Your task to perform on an android device: Open Google Maps and go to "Timeline" Image 0: 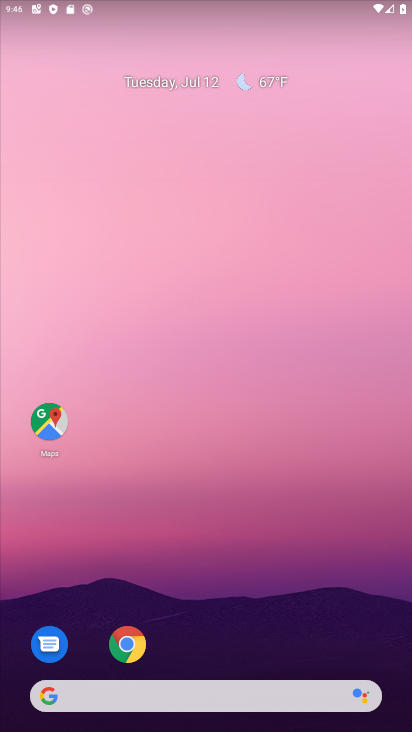
Step 0: drag from (215, 637) to (341, 59)
Your task to perform on an android device: Open Google Maps and go to "Timeline" Image 1: 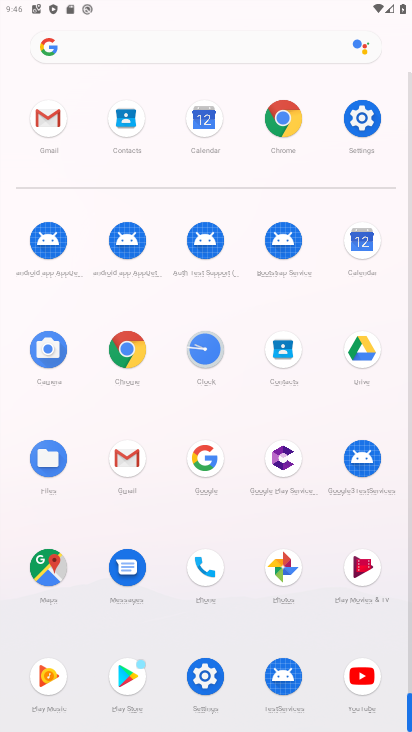
Step 1: click (45, 564)
Your task to perform on an android device: Open Google Maps and go to "Timeline" Image 2: 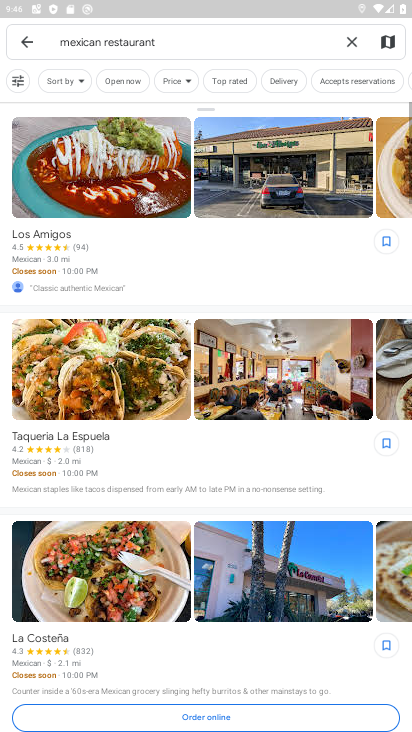
Step 2: click (12, 41)
Your task to perform on an android device: Open Google Maps and go to "Timeline" Image 3: 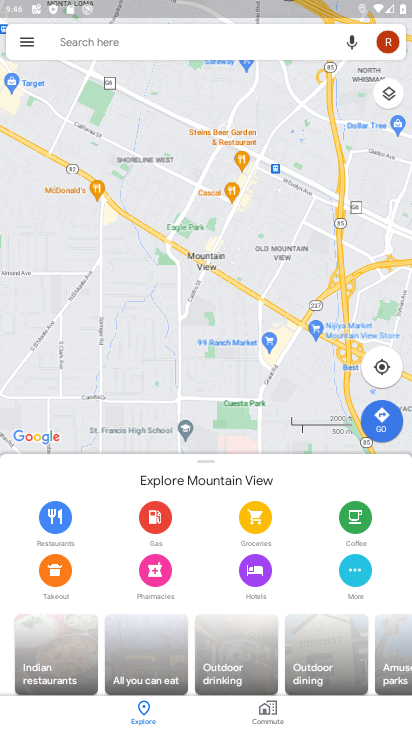
Step 3: click (23, 43)
Your task to perform on an android device: Open Google Maps and go to "Timeline" Image 4: 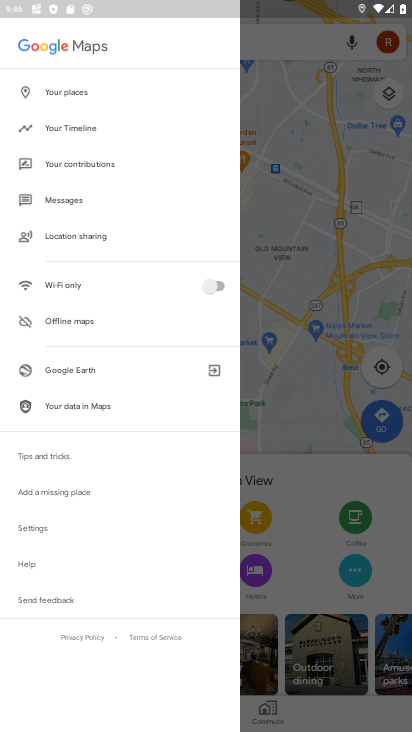
Step 4: click (76, 124)
Your task to perform on an android device: Open Google Maps and go to "Timeline" Image 5: 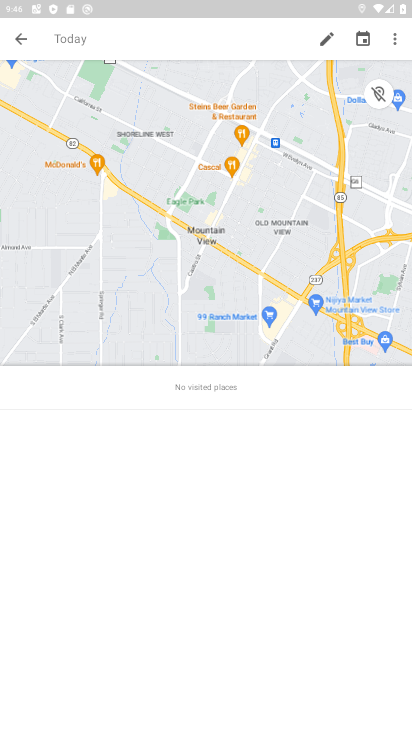
Step 5: drag from (160, 475) to (200, 169)
Your task to perform on an android device: Open Google Maps and go to "Timeline" Image 6: 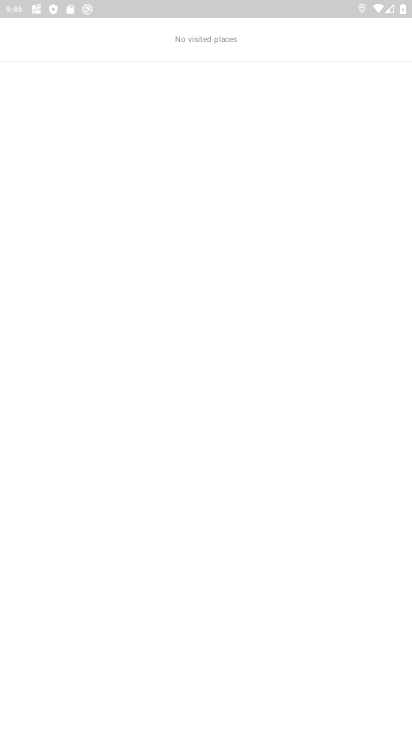
Step 6: drag from (185, 135) to (168, 690)
Your task to perform on an android device: Open Google Maps and go to "Timeline" Image 7: 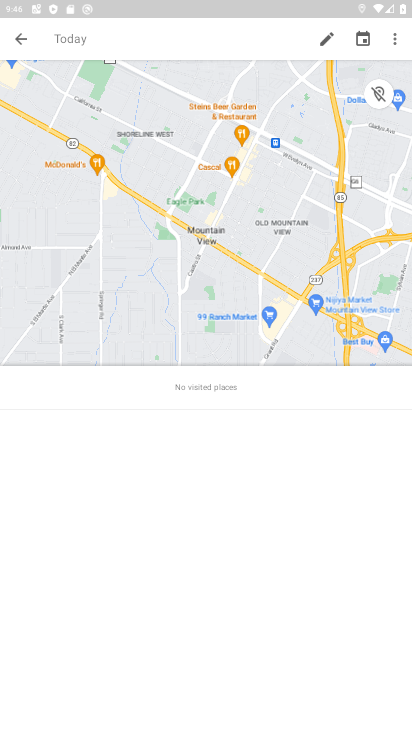
Step 7: click (12, 50)
Your task to perform on an android device: Open Google Maps and go to "Timeline" Image 8: 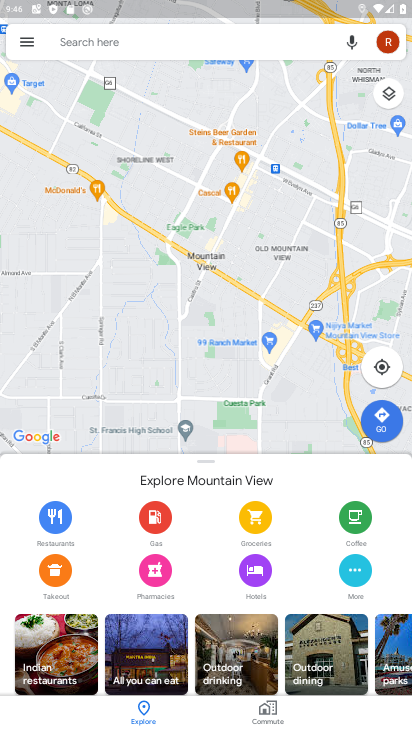
Step 8: drag from (228, 473) to (246, 206)
Your task to perform on an android device: Open Google Maps and go to "Timeline" Image 9: 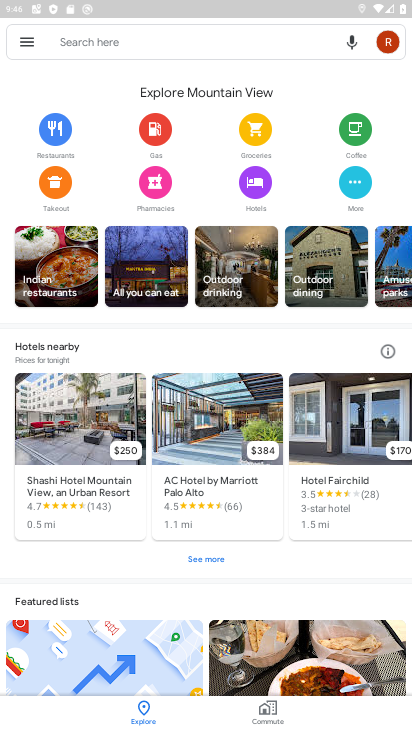
Step 9: drag from (192, 86) to (214, 542)
Your task to perform on an android device: Open Google Maps and go to "Timeline" Image 10: 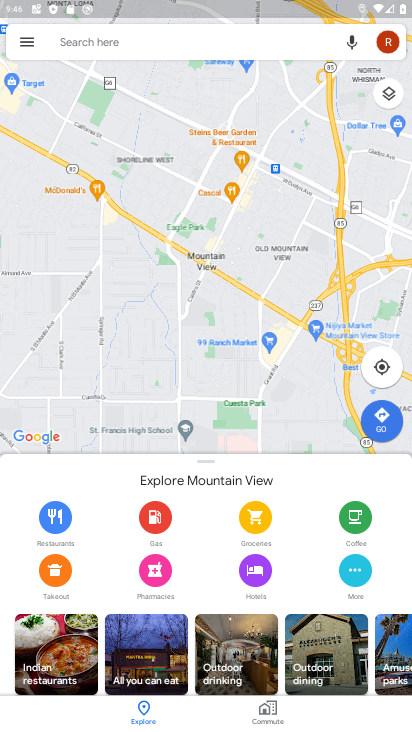
Step 10: click (19, 46)
Your task to perform on an android device: Open Google Maps and go to "Timeline" Image 11: 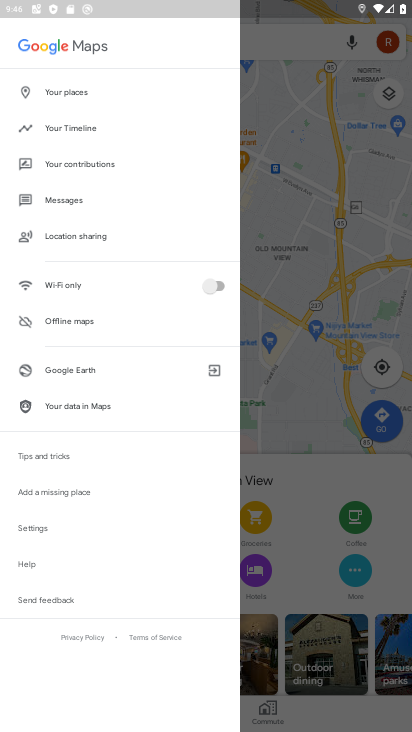
Step 11: click (74, 125)
Your task to perform on an android device: Open Google Maps and go to "Timeline" Image 12: 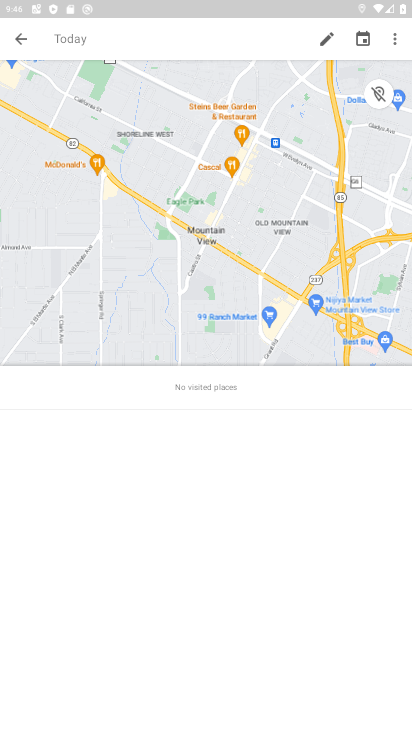
Step 12: task complete